Your task to perform on an android device: turn notification dots off Image 0: 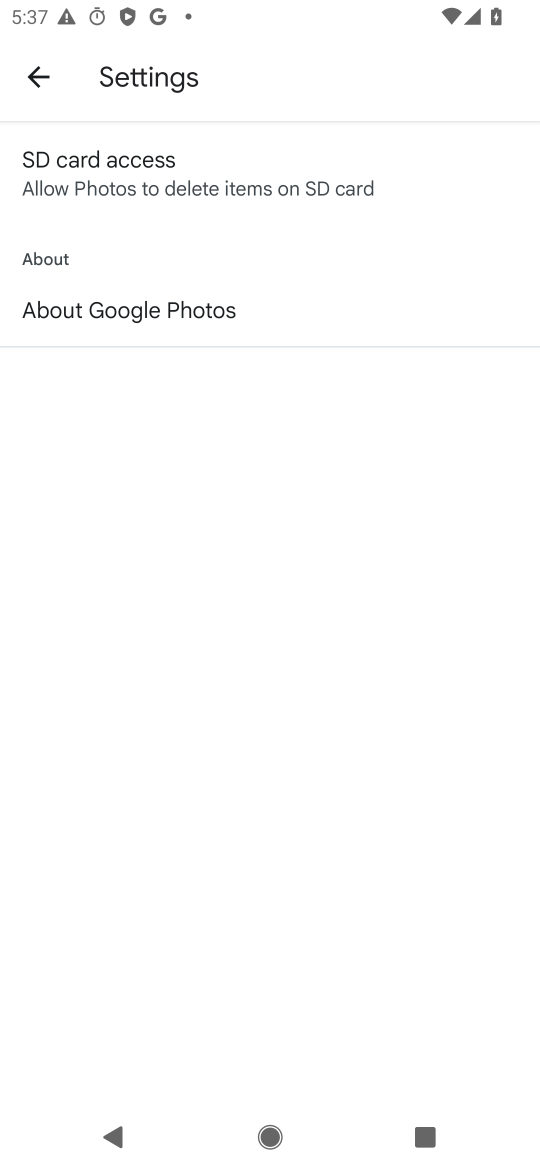
Step 0: press home button
Your task to perform on an android device: turn notification dots off Image 1: 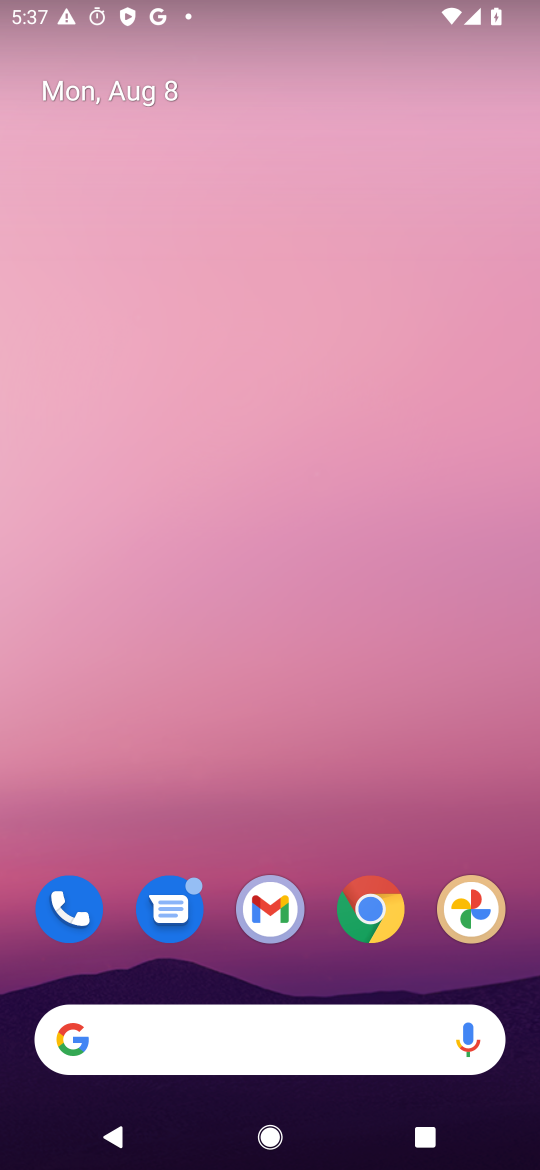
Step 1: drag from (308, 1049) to (529, 374)
Your task to perform on an android device: turn notification dots off Image 2: 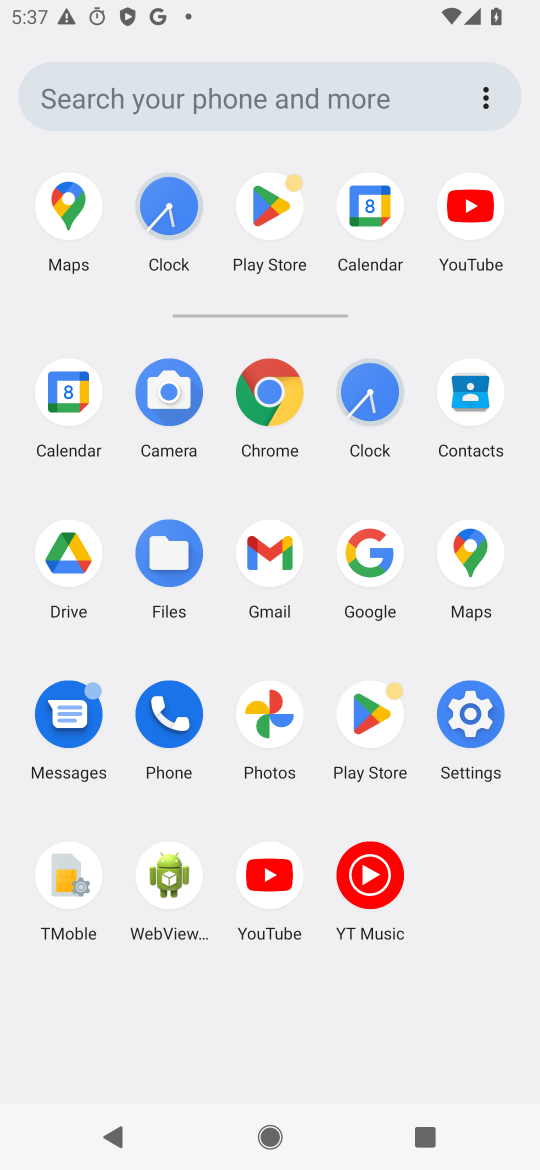
Step 2: click (454, 709)
Your task to perform on an android device: turn notification dots off Image 3: 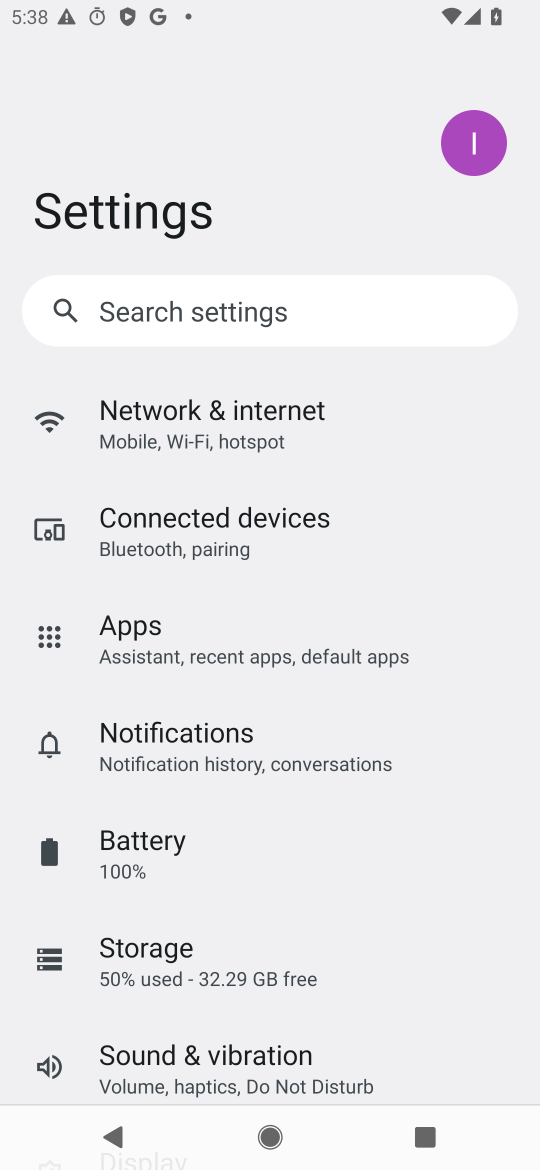
Step 3: click (247, 732)
Your task to perform on an android device: turn notification dots off Image 4: 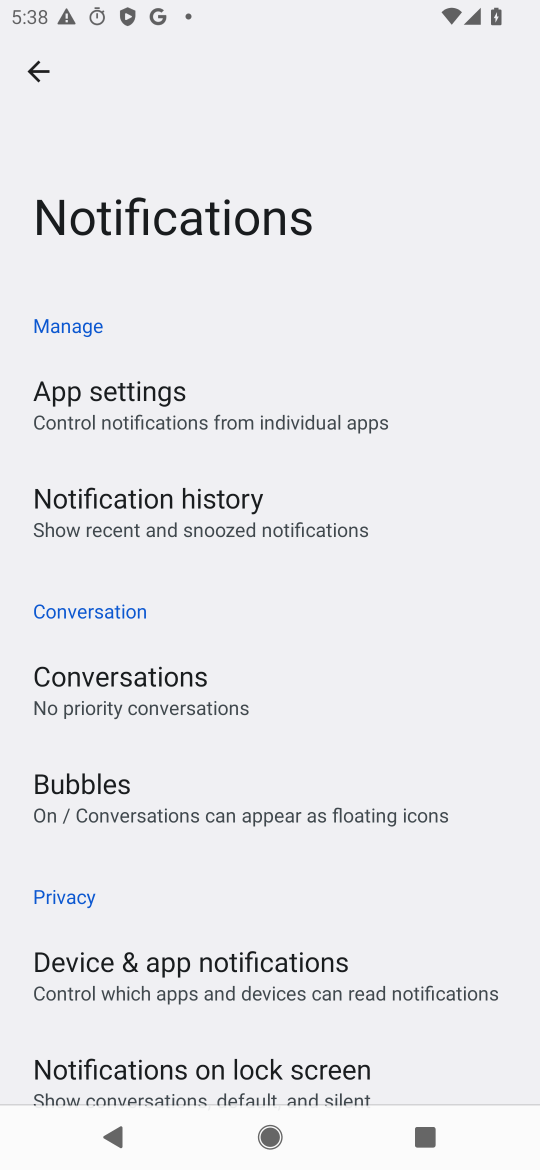
Step 4: task complete